Your task to perform on an android device: move a message to another label in the gmail app Image 0: 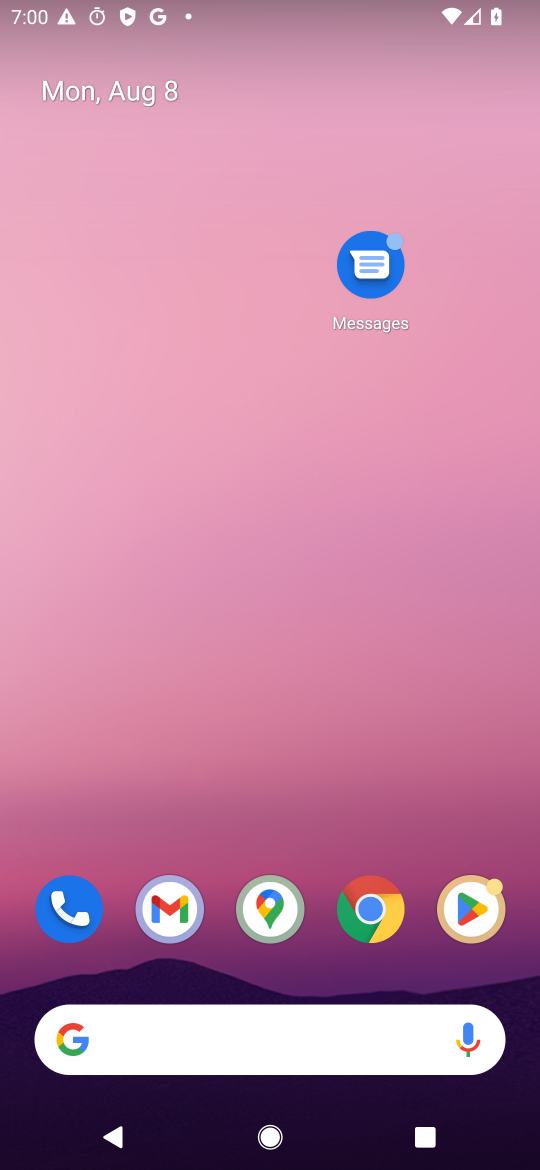
Step 0: press home button
Your task to perform on an android device: move a message to another label in the gmail app Image 1: 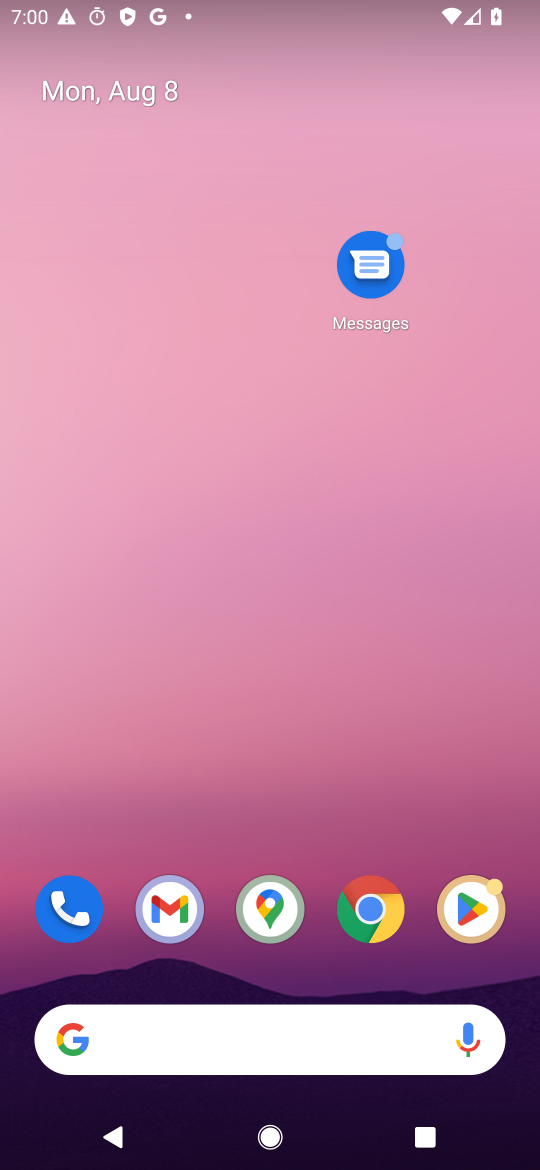
Step 1: click (166, 918)
Your task to perform on an android device: move a message to another label in the gmail app Image 2: 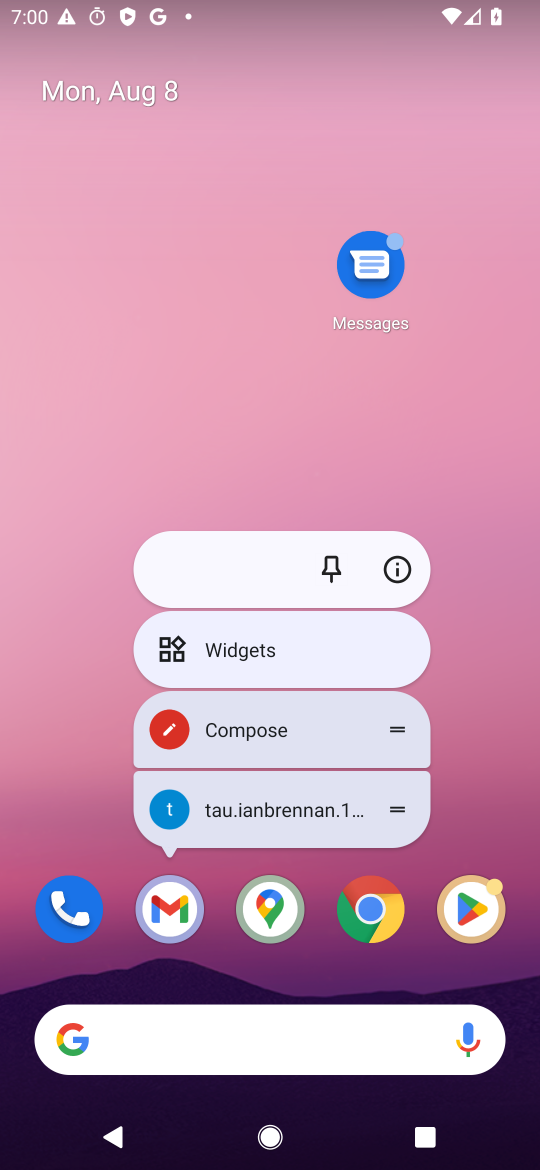
Step 2: click (177, 898)
Your task to perform on an android device: move a message to another label in the gmail app Image 3: 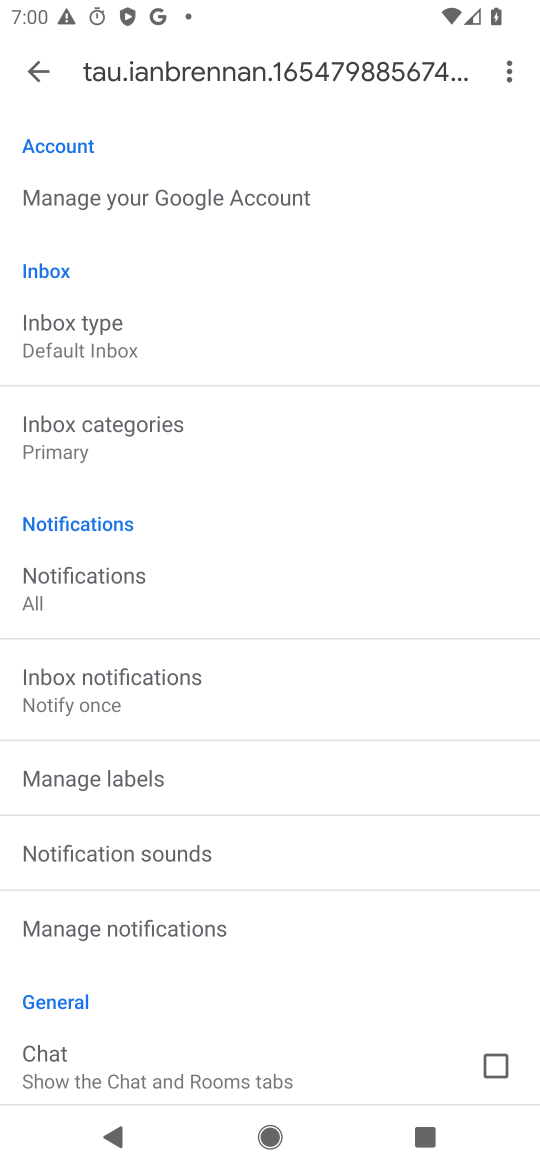
Step 3: click (44, 61)
Your task to perform on an android device: move a message to another label in the gmail app Image 4: 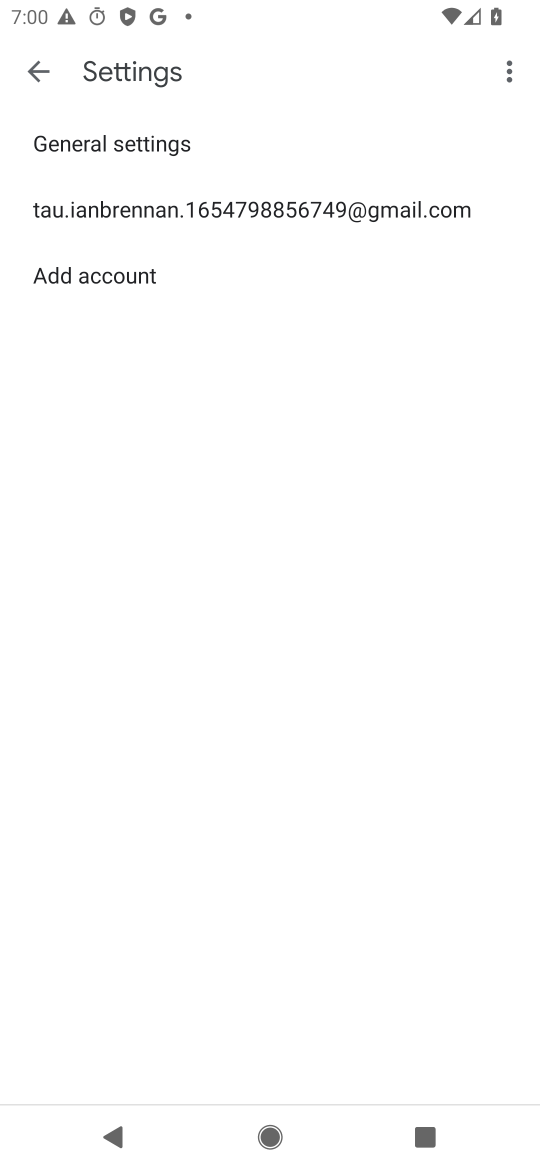
Step 4: click (39, 76)
Your task to perform on an android device: move a message to another label in the gmail app Image 5: 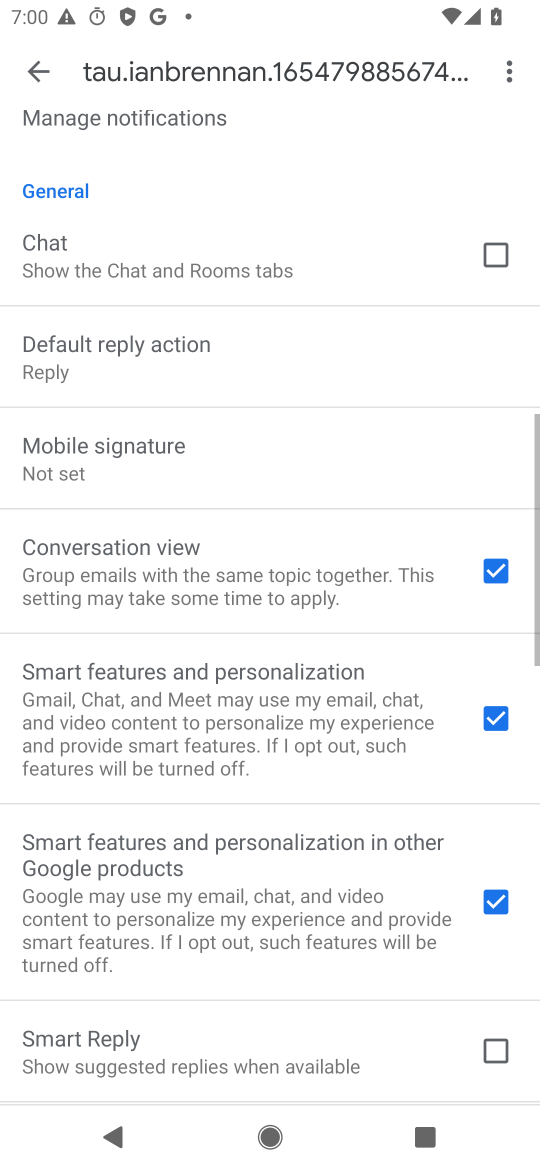
Step 5: click (39, 74)
Your task to perform on an android device: move a message to another label in the gmail app Image 6: 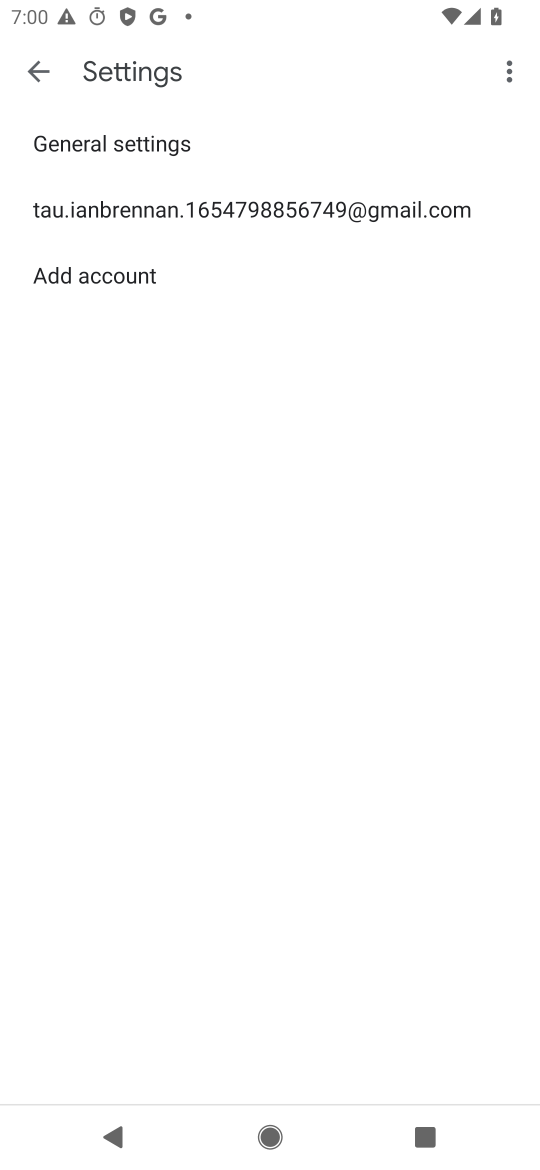
Step 6: click (39, 77)
Your task to perform on an android device: move a message to another label in the gmail app Image 7: 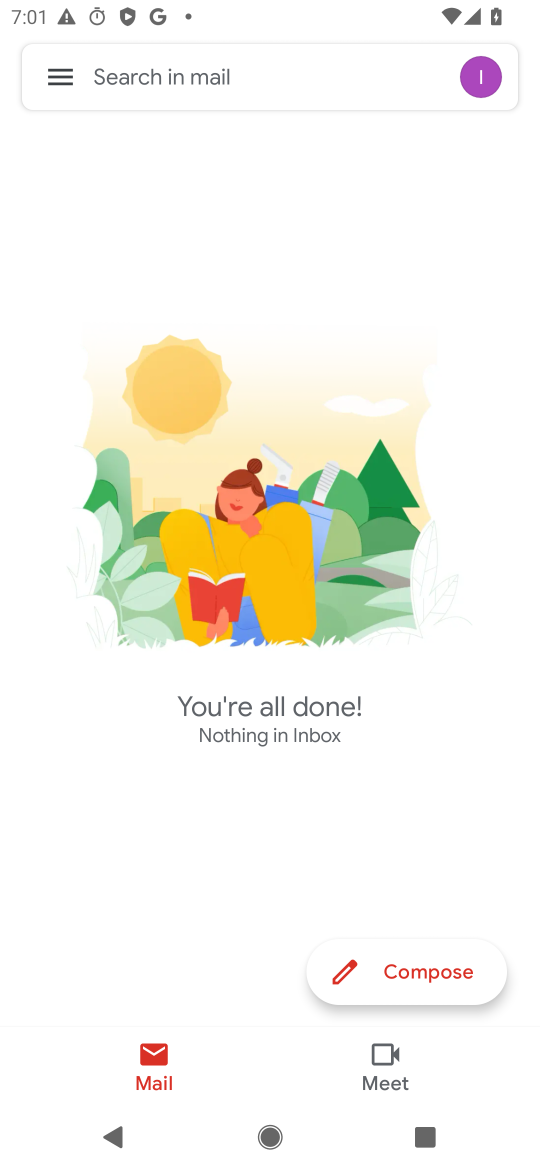
Step 7: drag from (244, 887) to (283, 275)
Your task to perform on an android device: move a message to another label in the gmail app Image 8: 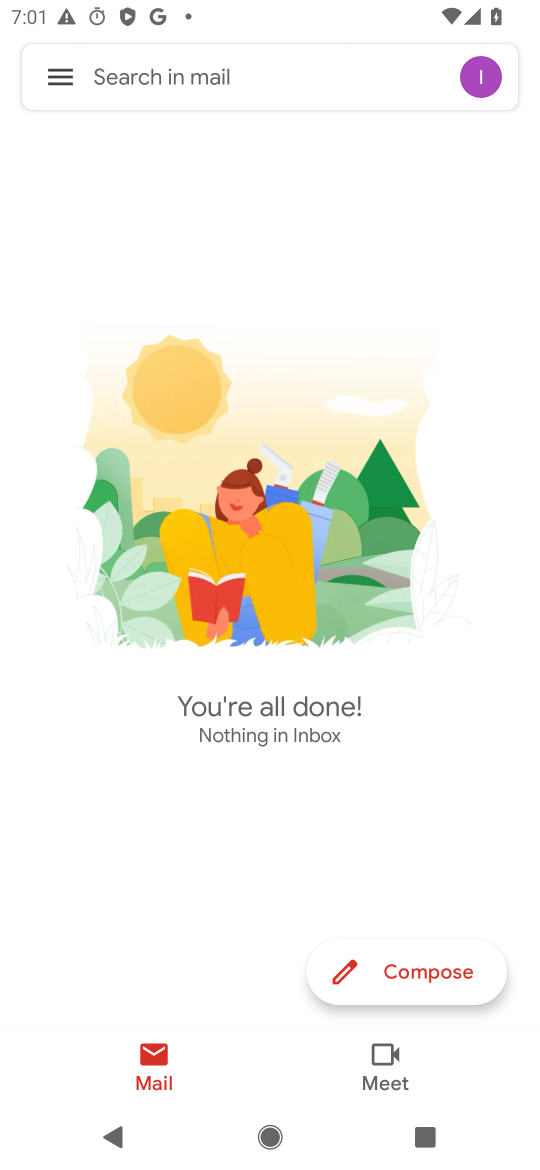
Step 8: click (67, 71)
Your task to perform on an android device: move a message to another label in the gmail app Image 9: 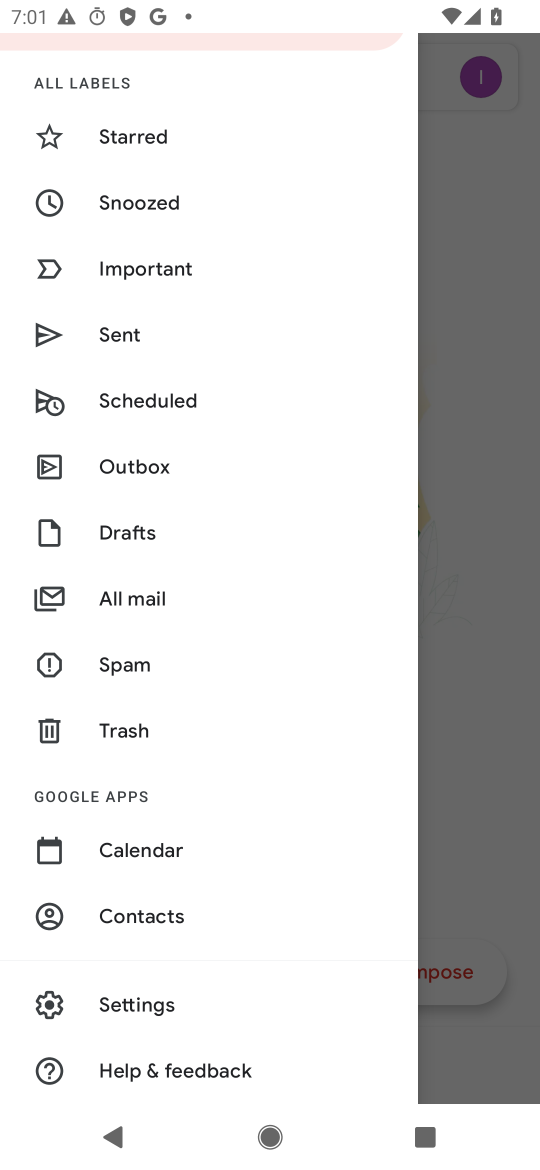
Step 9: click (138, 600)
Your task to perform on an android device: move a message to another label in the gmail app Image 10: 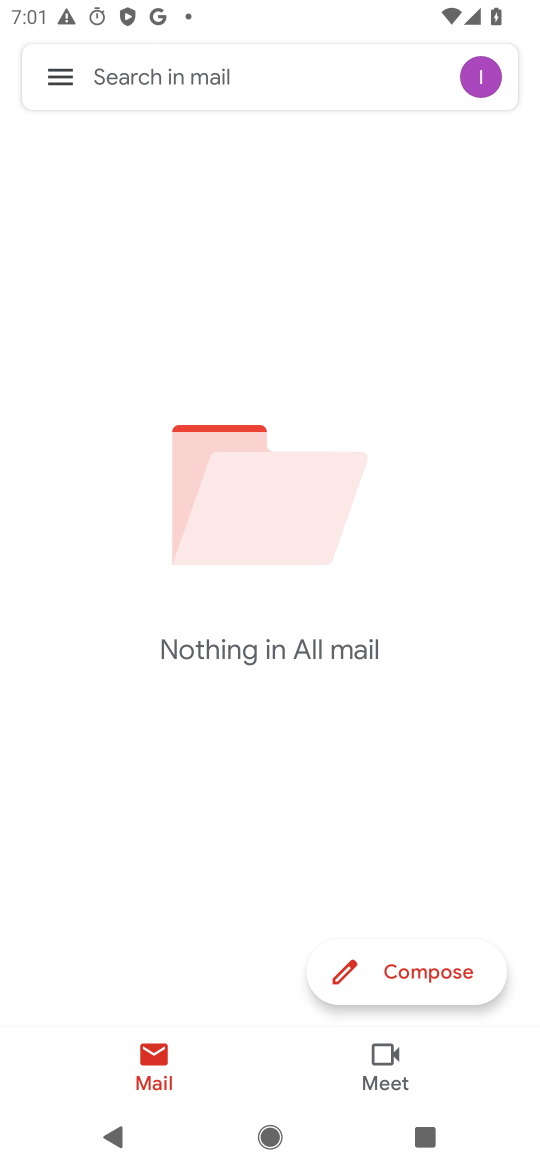
Step 10: task complete